Your task to perform on an android device: turn off notifications in google photos Image 0: 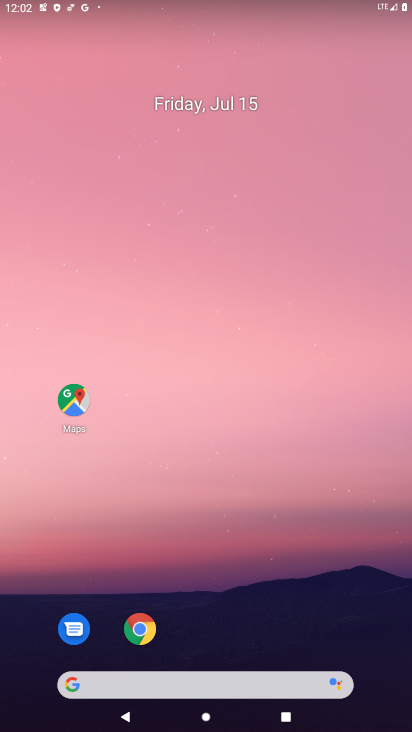
Step 0: drag from (35, 712) to (170, 289)
Your task to perform on an android device: turn off notifications in google photos Image 1: 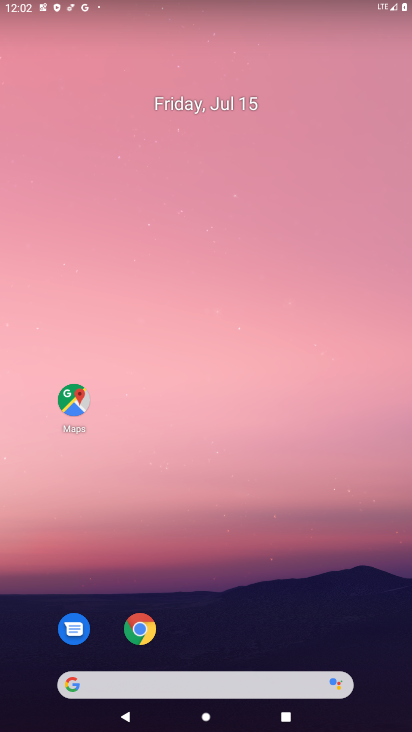
Step 1: drag from (25, 688) to (337, 16)
Your task to perform on an android device: turn off notifications in google photos Image 2: 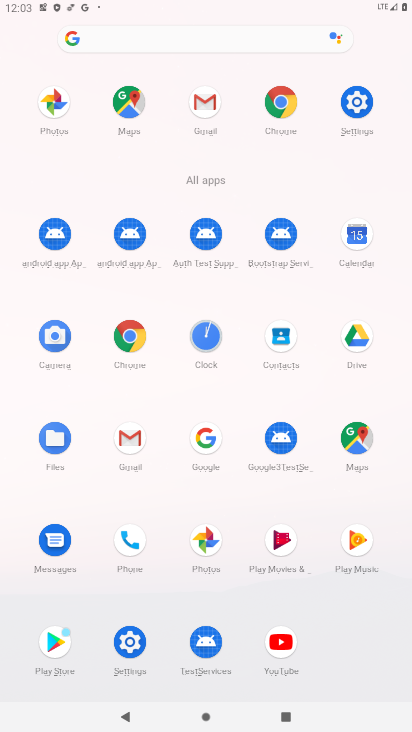
Step 2: click (201, 536)
Your task to perform on an android device: turn off notifications in google photos Image 3: 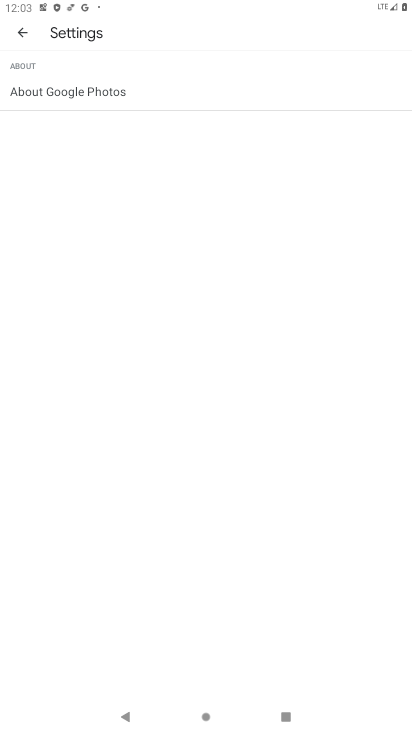
Step 3: click (21, 32)
Your task to perform on an android device: turn off notifications in google photos Image 4: 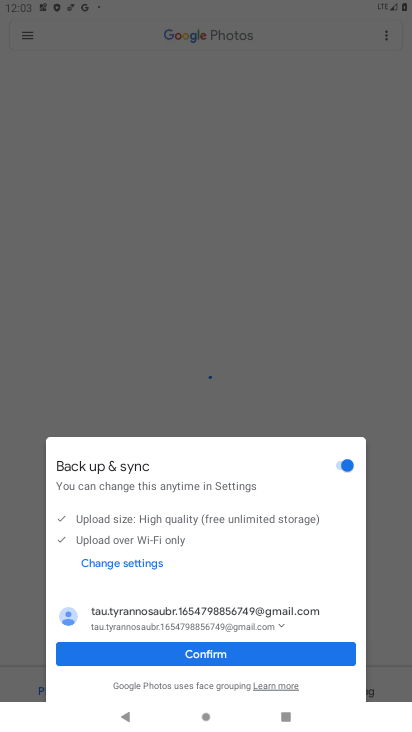
Step 4: click (186, 668)
Your task to perform on an android device: turn off notifications in google photos Image 5: 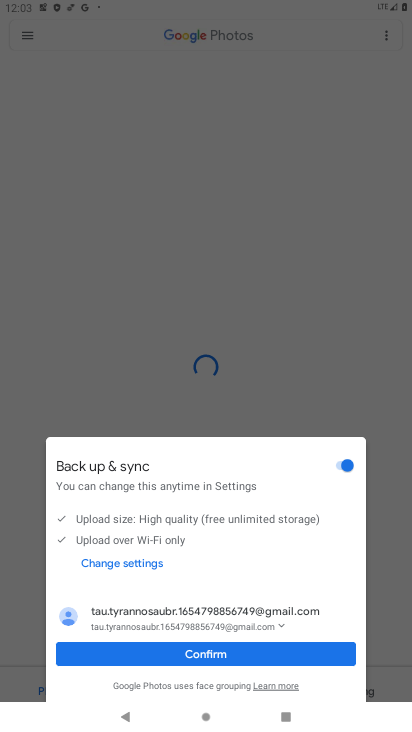
Step 5: click (183, 657)
Your task to perform on an android device: turn off notifications in google photos Image 6: 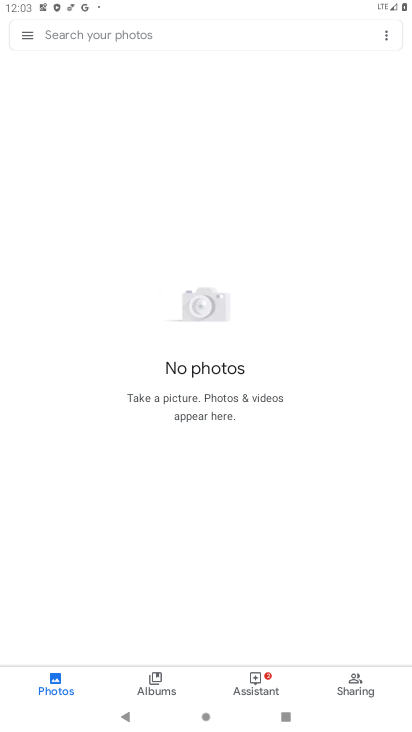
Step 6: click (385, 34)
Your task to perform on an android device: turn off notifications in google photos Image 7: 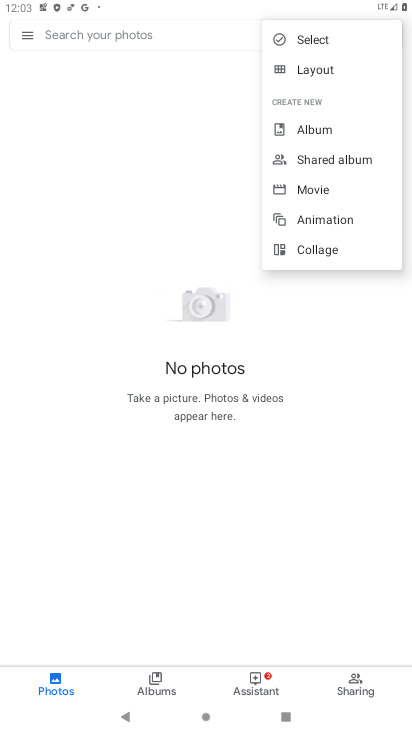
Step 7: click (126, 52)
Your task to perform on an android device: turn off notifications in google photos Image 8: 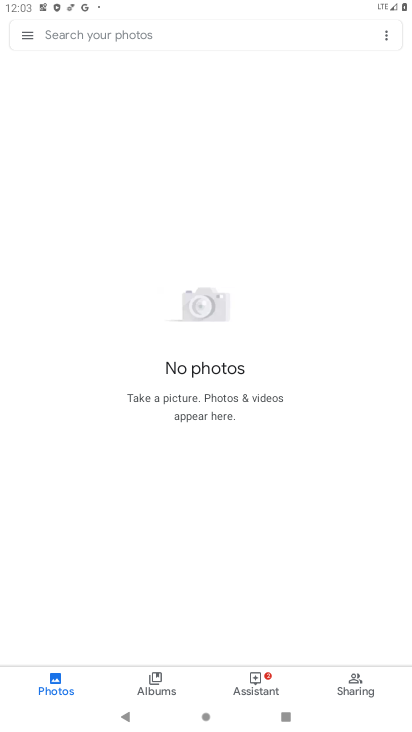
Step 8: click (33, 38)
Your task to perform on an android device: turn off notifications in google photos Image 9: 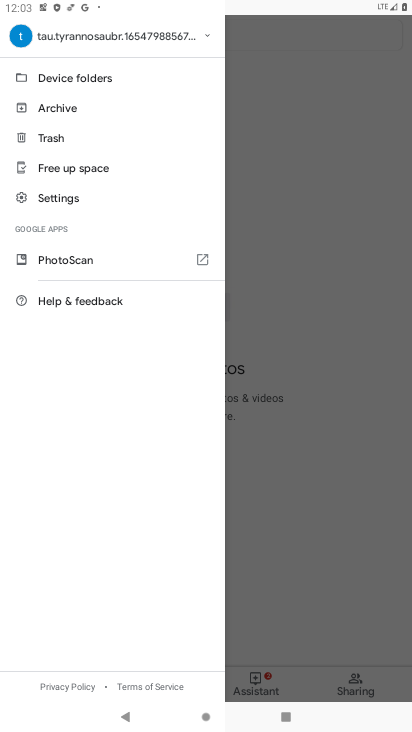
Step 9: click (43, 204)
Your task to perform on an android device: turn off notifications in google photos Image 10: 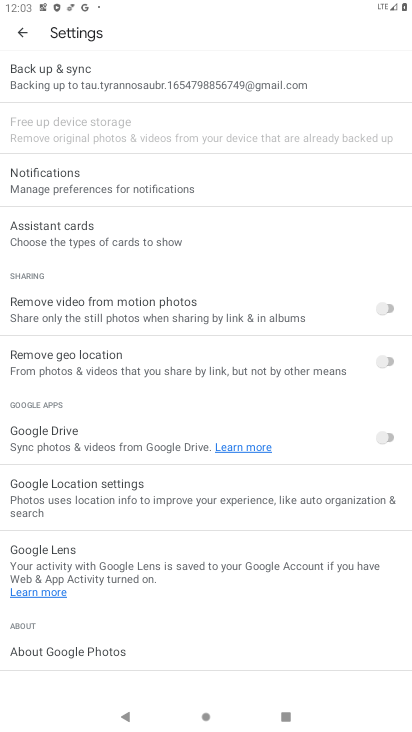
Step 10: click (52, 179)
Your task to perform on an android device: turn off notifications in google photos Image 11: 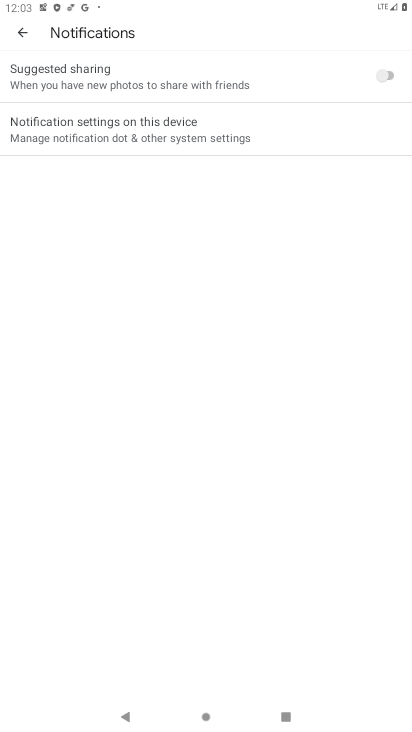
Step 11: click (67, 135)
Your task to perform on an android device: turn off notifications in google photos Image 12: 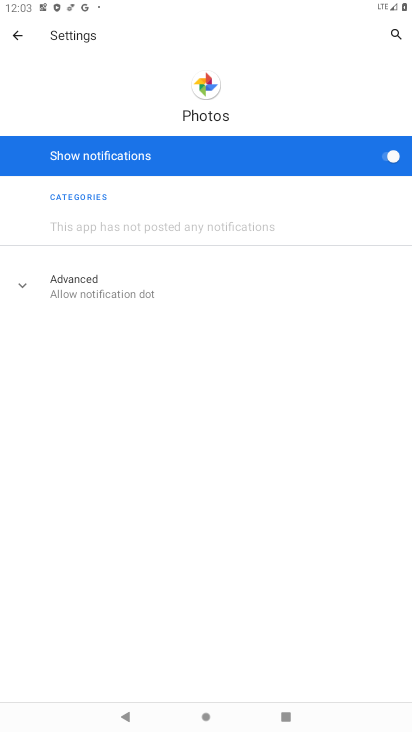
Step 12: click (388, 157)
Your task to perform on an android device: turn off notifications in google photos Image 13: 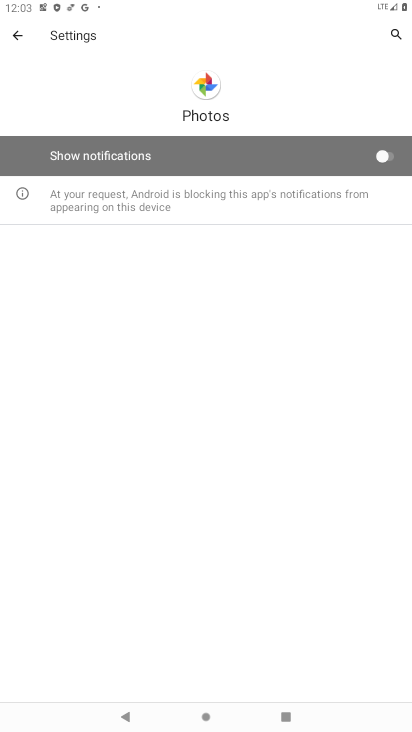
Step 13: task complete